Your task to perform on an android device: Go to Wikipedia Image 0: 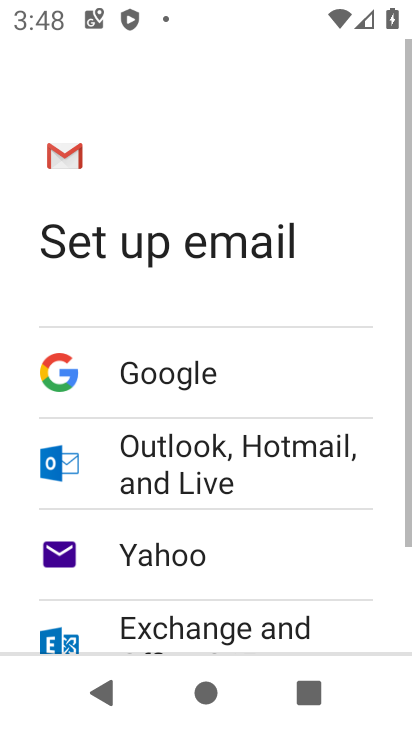
Step 0: press home button
Your task to perform on an android device: Go to Wikipedia Image 1: 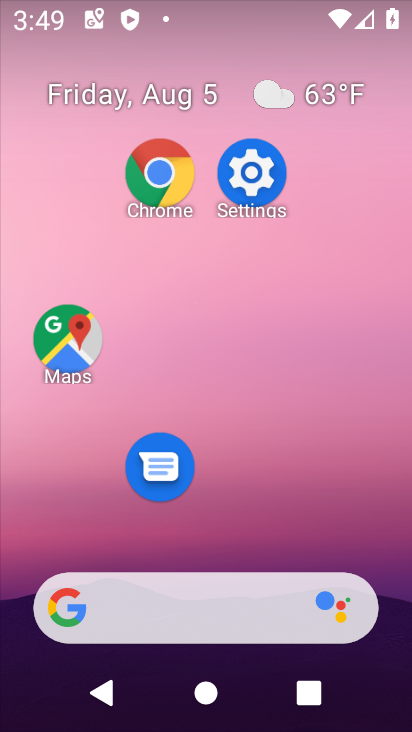
Step 1: drag from (271, 528) to (265, 34)
Your task to perform on an android device: Go to Wikipedia Image 2: 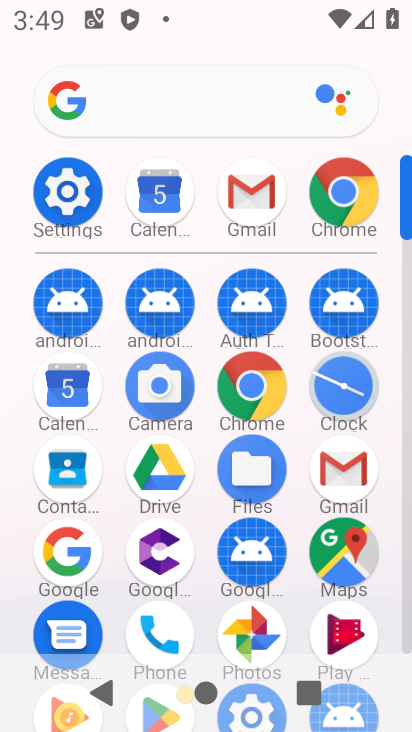
Step 2: click (248, 381)
Your task to perform on an android device: Go to Wikipedia Image 3: 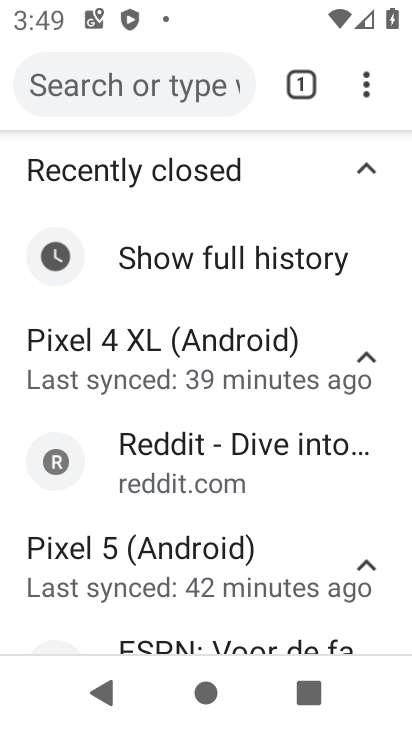
Step 3: click (130, 89)
Your task to perform on an android device: Go to Wikipedia Image 4: 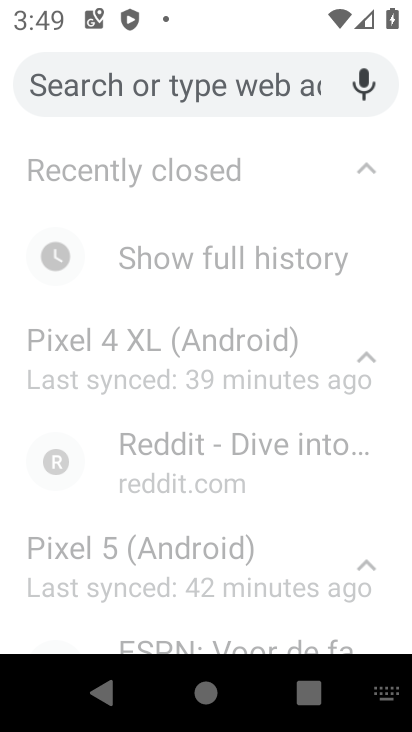
Step 4: type " Wikipedia"
Your task to perform on an android device: Go to Wikipedia Image 5: 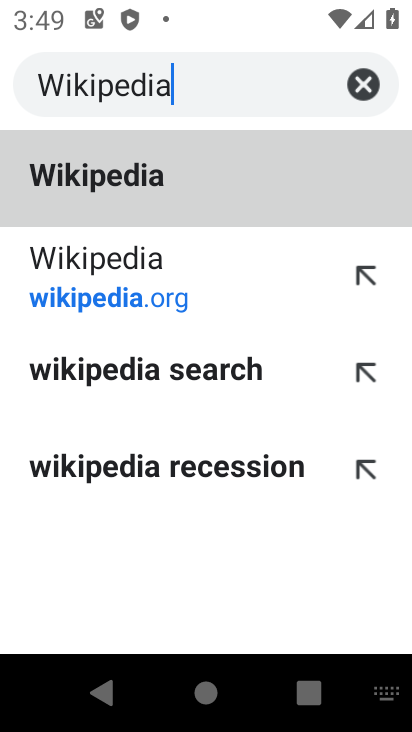
Step 5: click (121, 296)
Your task to perform on an android device: Go to Wikipedia Image 6: 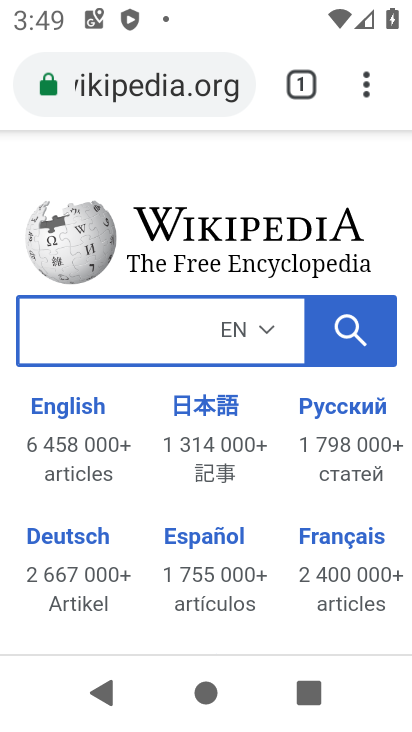
Step 6: task complete